Your task to perform on an android device: Go to battery settings Image 0: 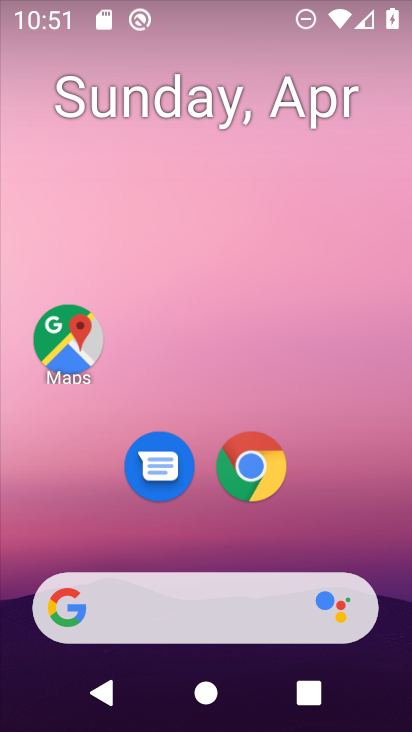
Step 0: drag from (338, 531) to (374, 149)
Your task to perform on an android device: Go to battery settings Image 1: 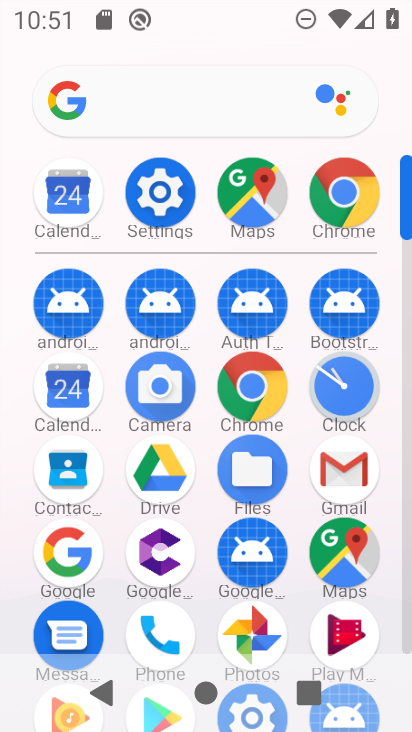
Step 1: click (168, 200)
Your task to perform on an android device: Go to battery settings Image 2: 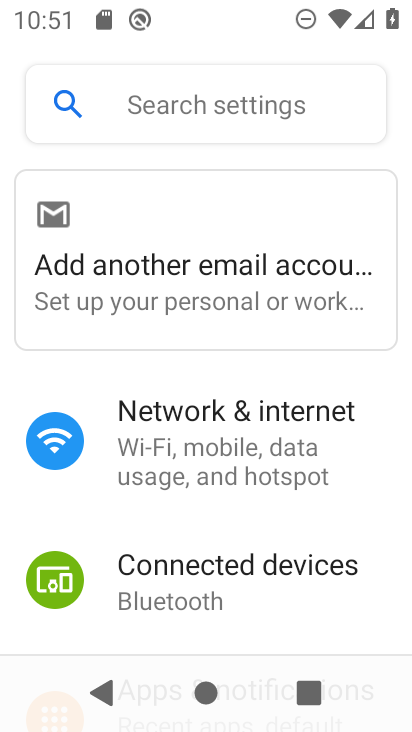
Step 2: drag from (360, 602) to (362, 413)
Your task to perform on an android device: Go to battery settings Image 3: 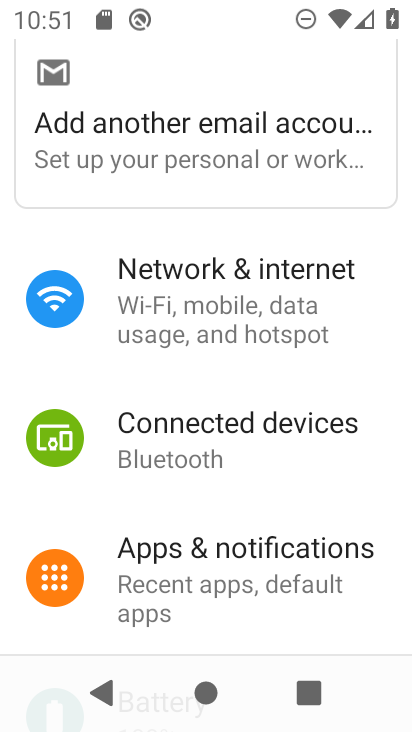
Step 3: drag from (343, 523) to (348, 323)
Your task to perform on an android device: Go to battery settings Image 4: 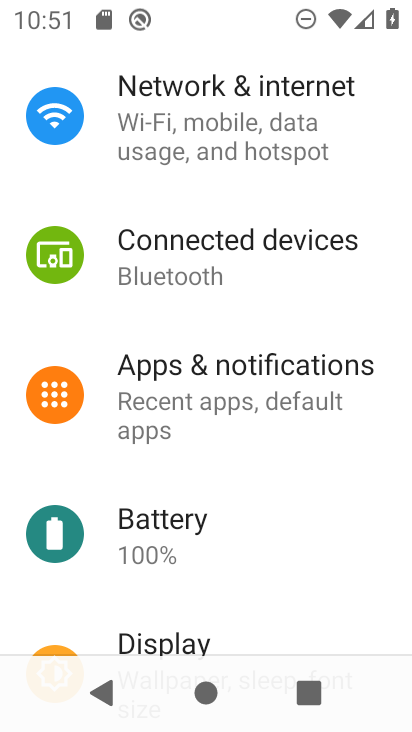
Step 4: drag from (334, 583) to (335, 393)
Your task to perform on an android device: Go to battery settings Image 5: 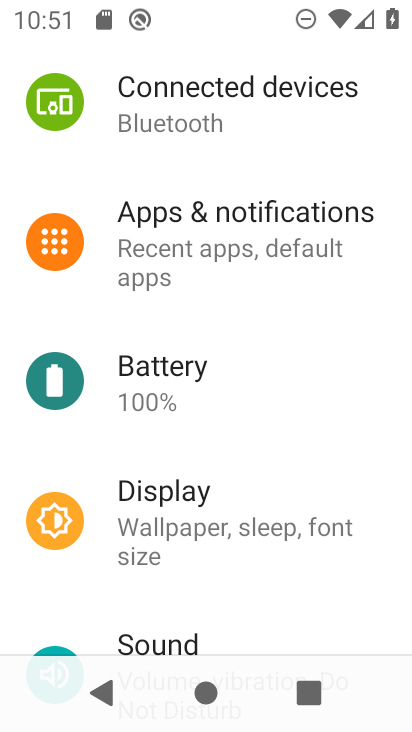
Step 5: click (151, 378)
Your task to perform on an android device: Go to battery settings Image 6: 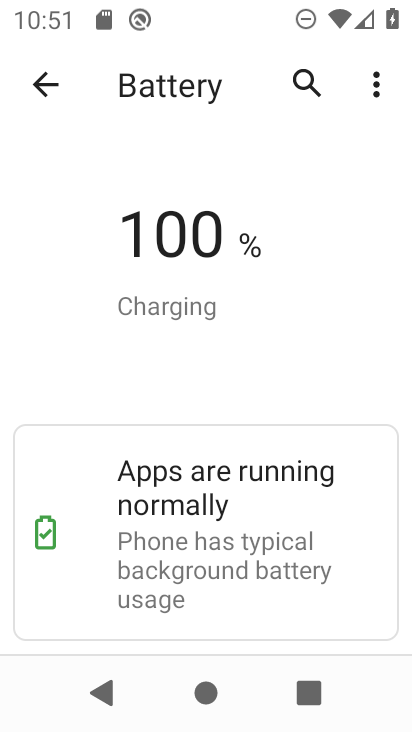
Step 6: task complete